Your task to perform on an android device: Add "bose soundlink mini" to the cart on bestbuy Image 0: 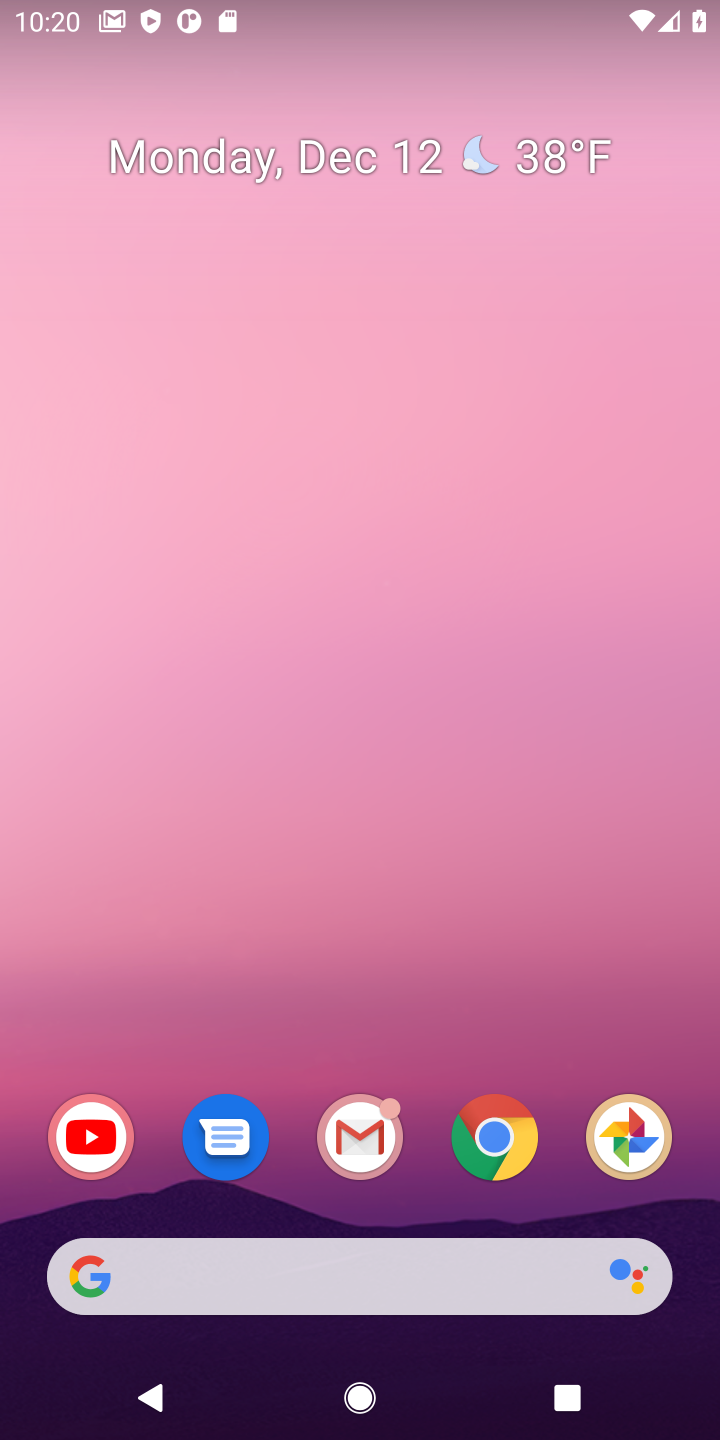
Step 0: click (492, 1278)
Your task to perform on an android device: Add "bose soundlink mini" to the cart on bestbuy Image 1: 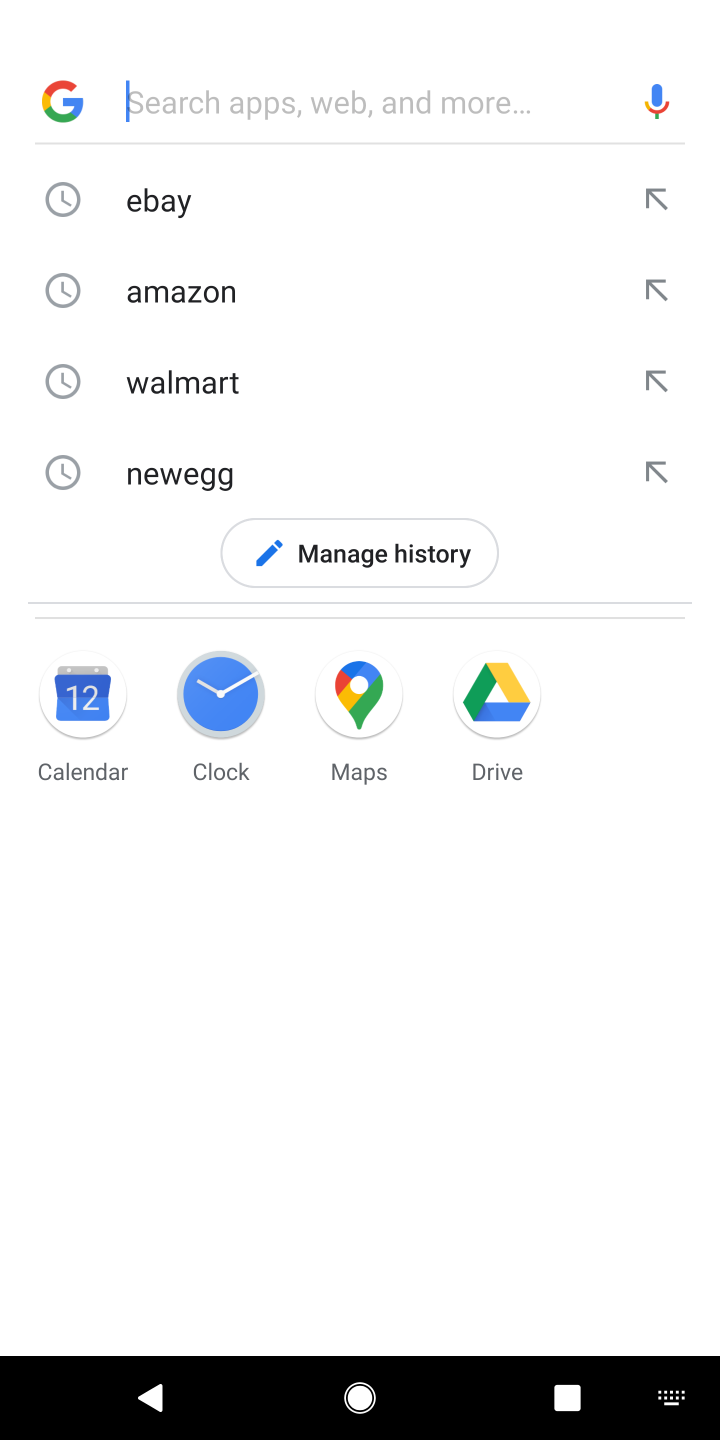
Step 1: type "bestbuy"
Your task to perform on an android device: Add "bose soundlink mini" to the cart on bestbuy Image 2: 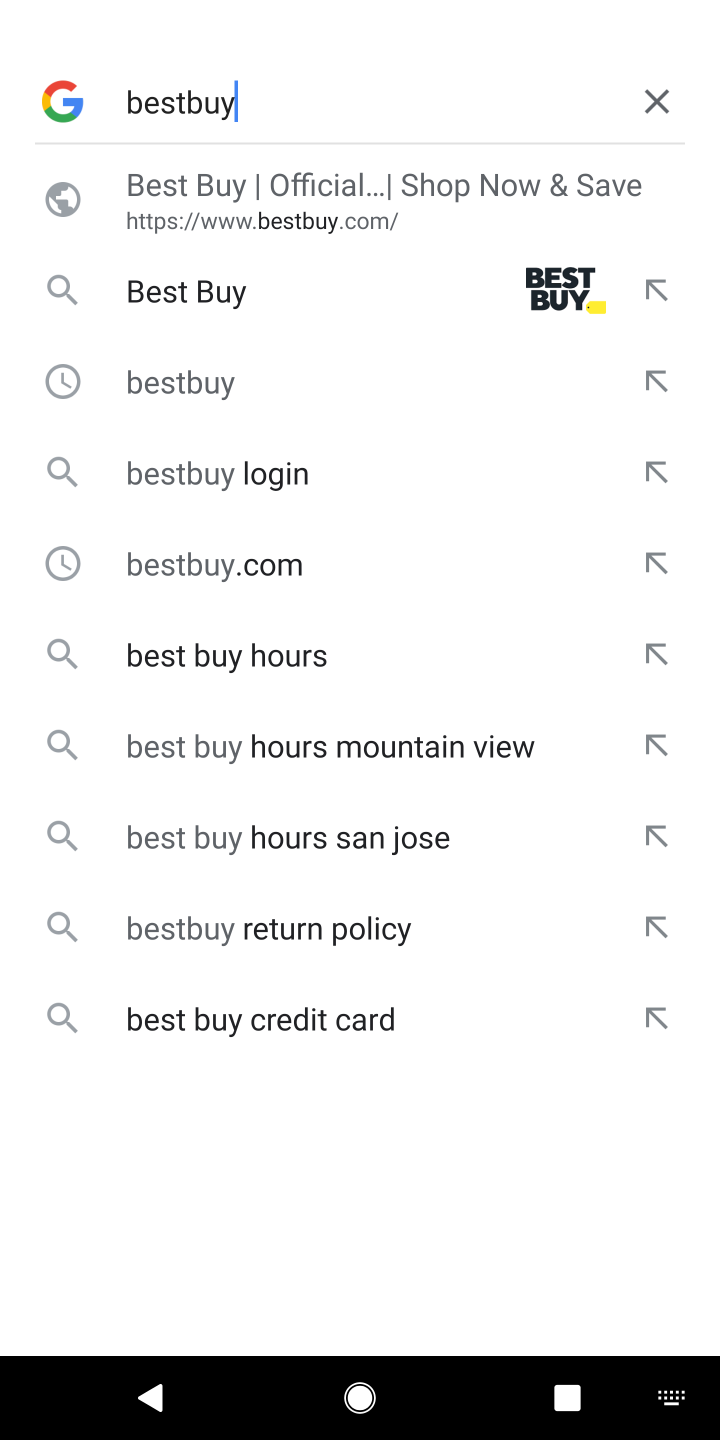
Step 2: click (244, 230)
Your task to perform on an android device: Add "bose soundlink mini" to the cart on bestbuy Image 3: 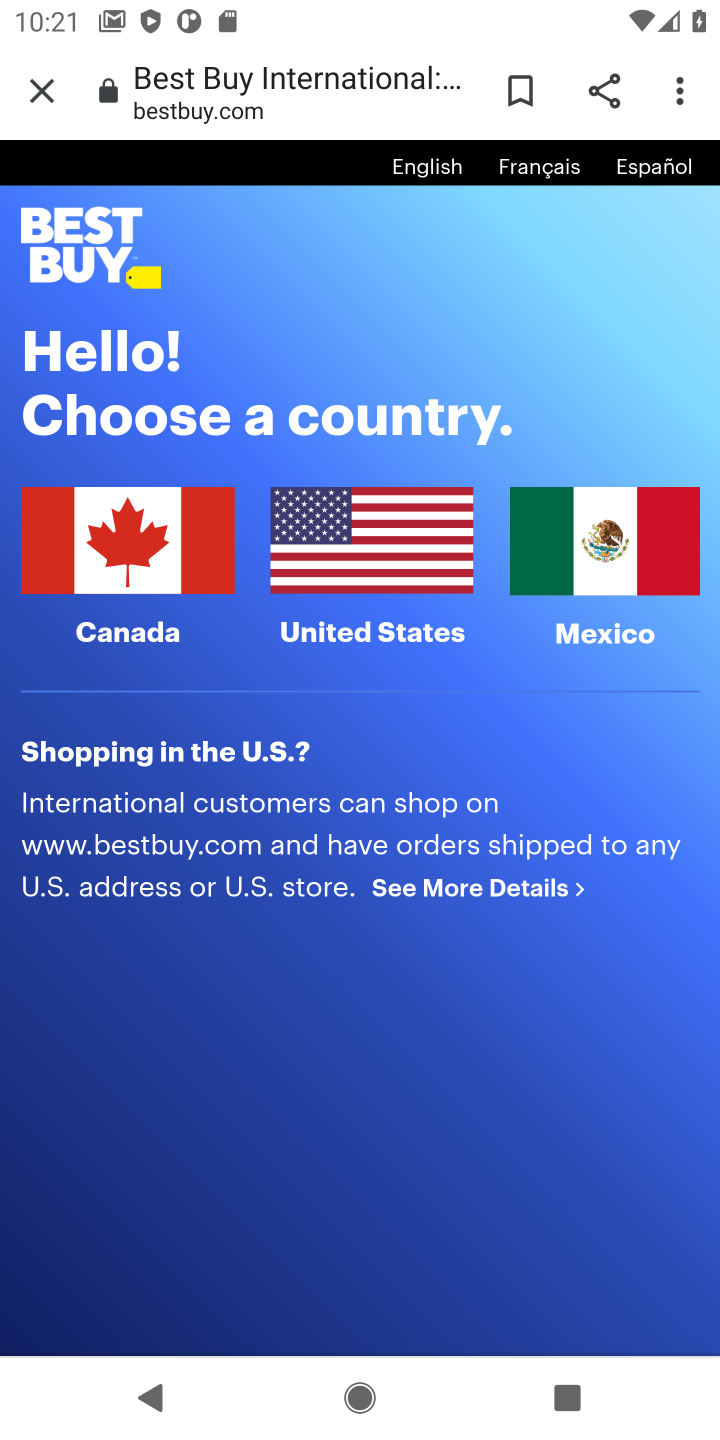
Step 3: click (66, 545)
Your task to perform on an android device: Add "bose soundlink mini" to the cart on bestbuy Image 4: 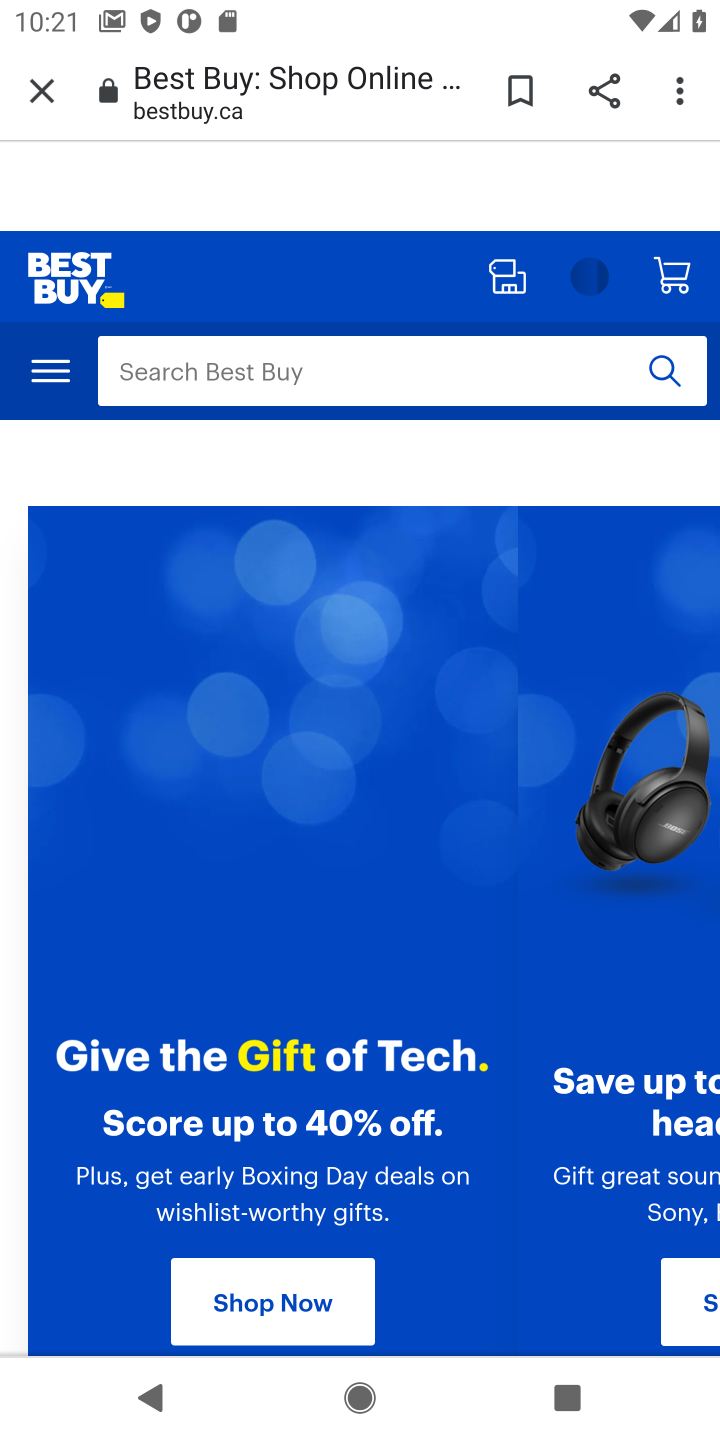
Step 4: click (279, 357)
Your task to perform on an android device: Add "bose soundlink mini" to the cart on bestbuy Image 5: 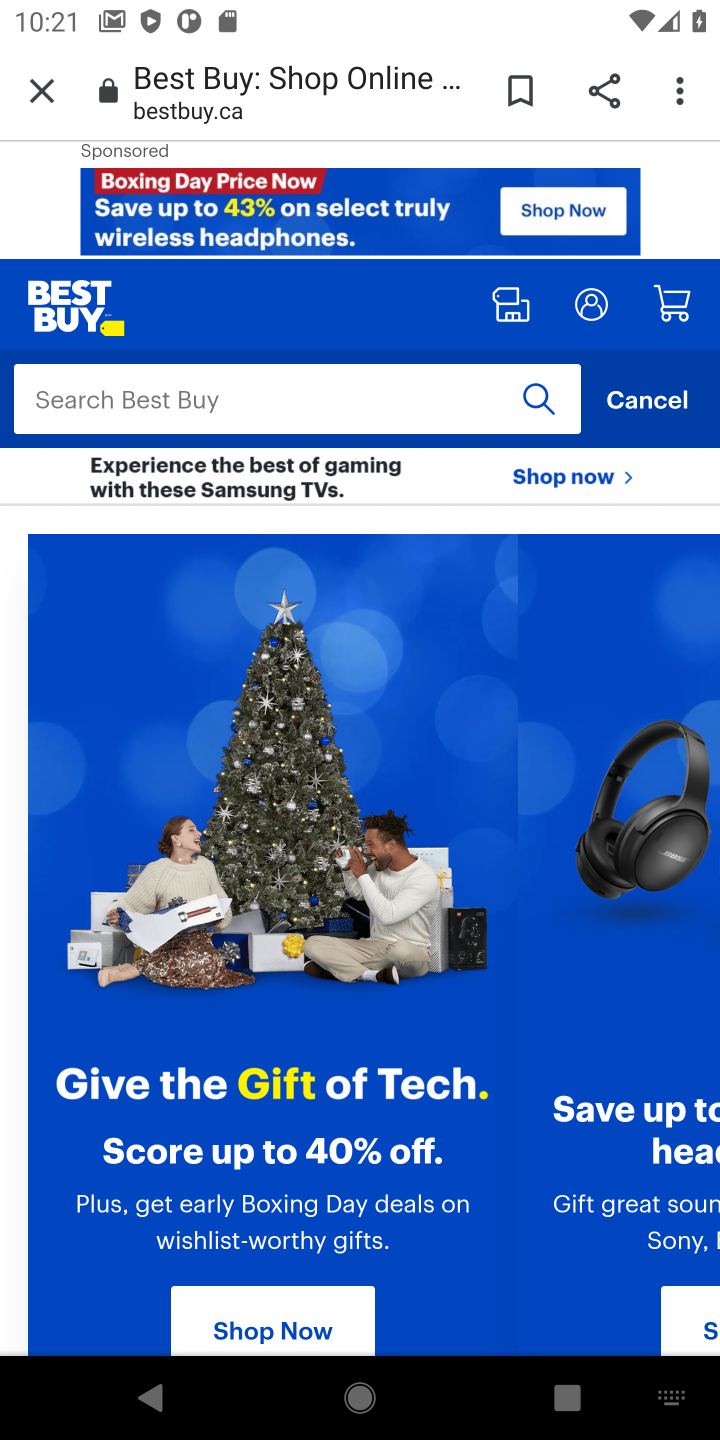
Step 5: type "bose soundlink"
Your task to perform on an android device: Add "bose soundlink mini" to the cart on bestbuy Image 6: 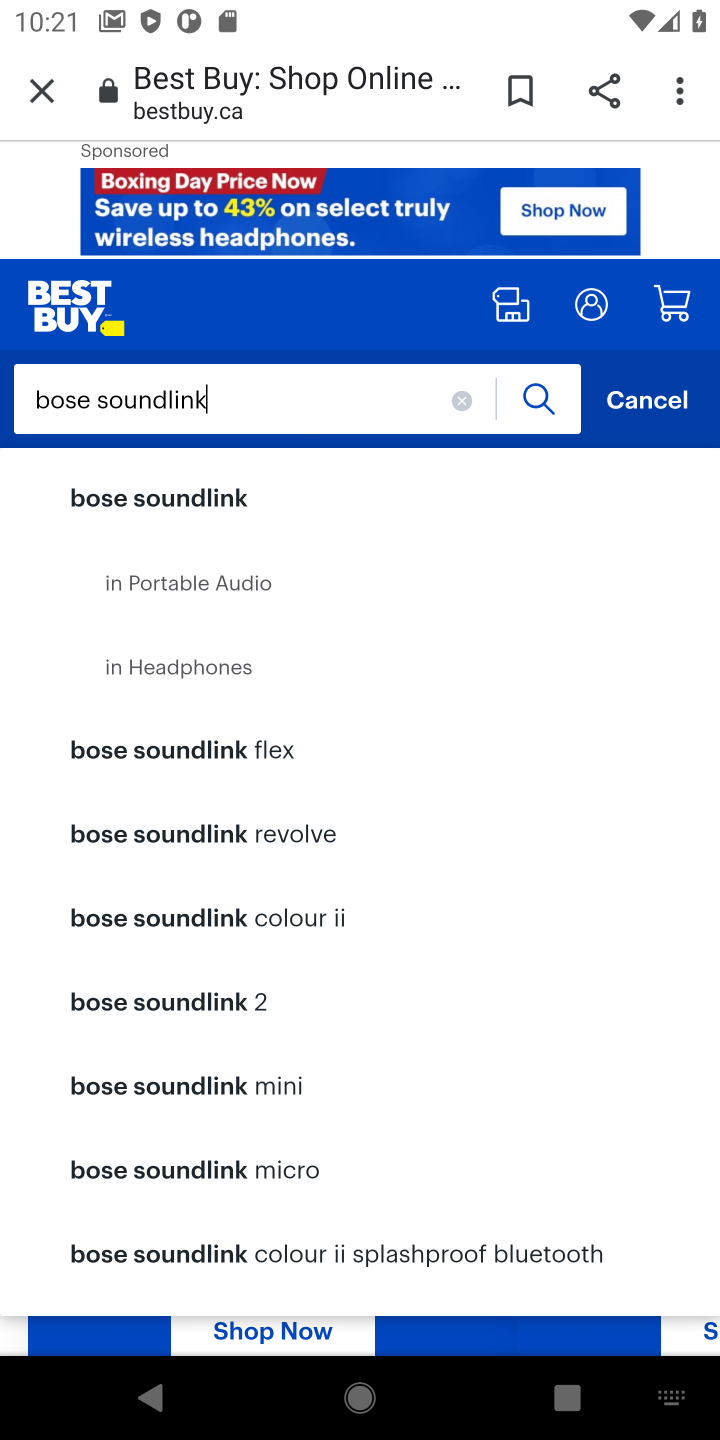
Step 6: click (306, 491)
Your task to perform on an android device: Add "bose soundlink mini" to the cart on bestbuy Image 7: 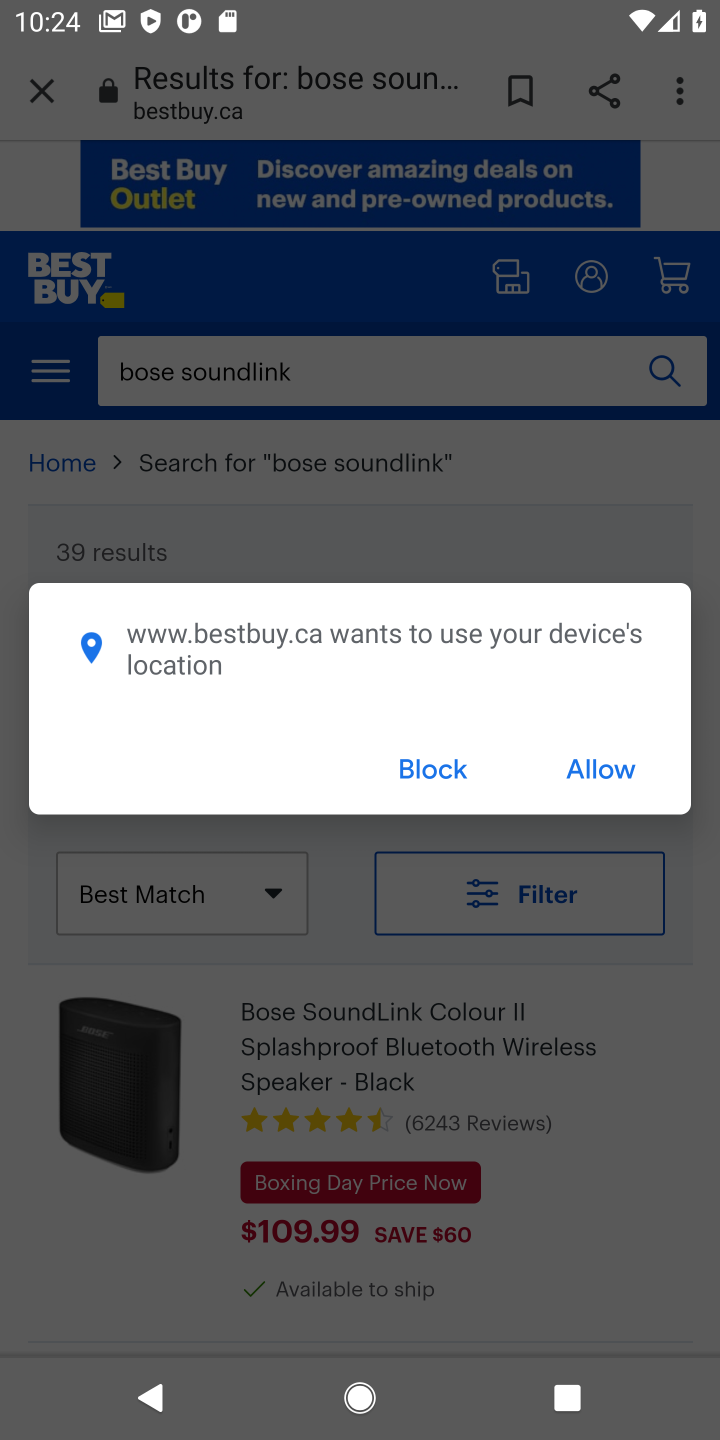
Step 7: click (633, 760)
Your task to perform on an android device: Add "bose soundlink mini" to the cart on bestbuy Image 8: 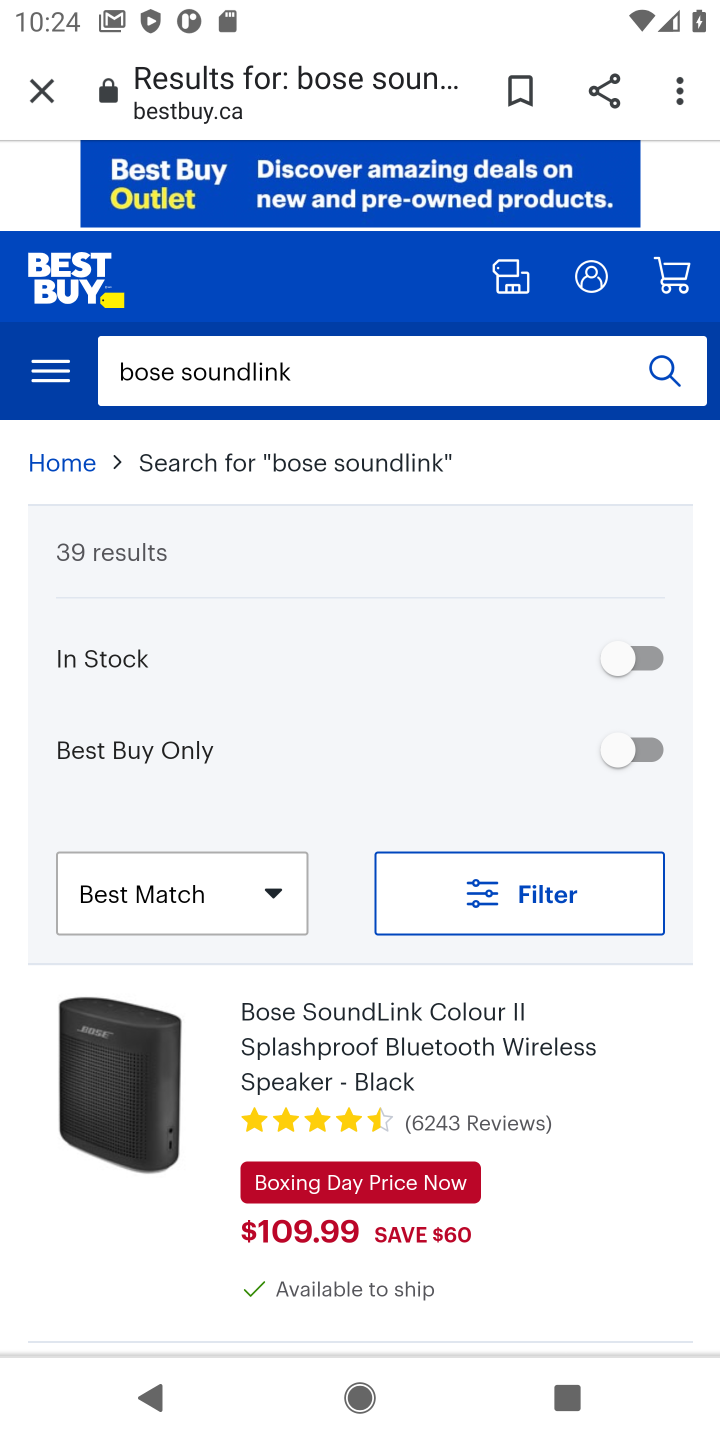
Step 8: click (511, 1151)
Your task to perform on an android device: Add "bose soundlink mini" to the cart on bestbuy Image 9: 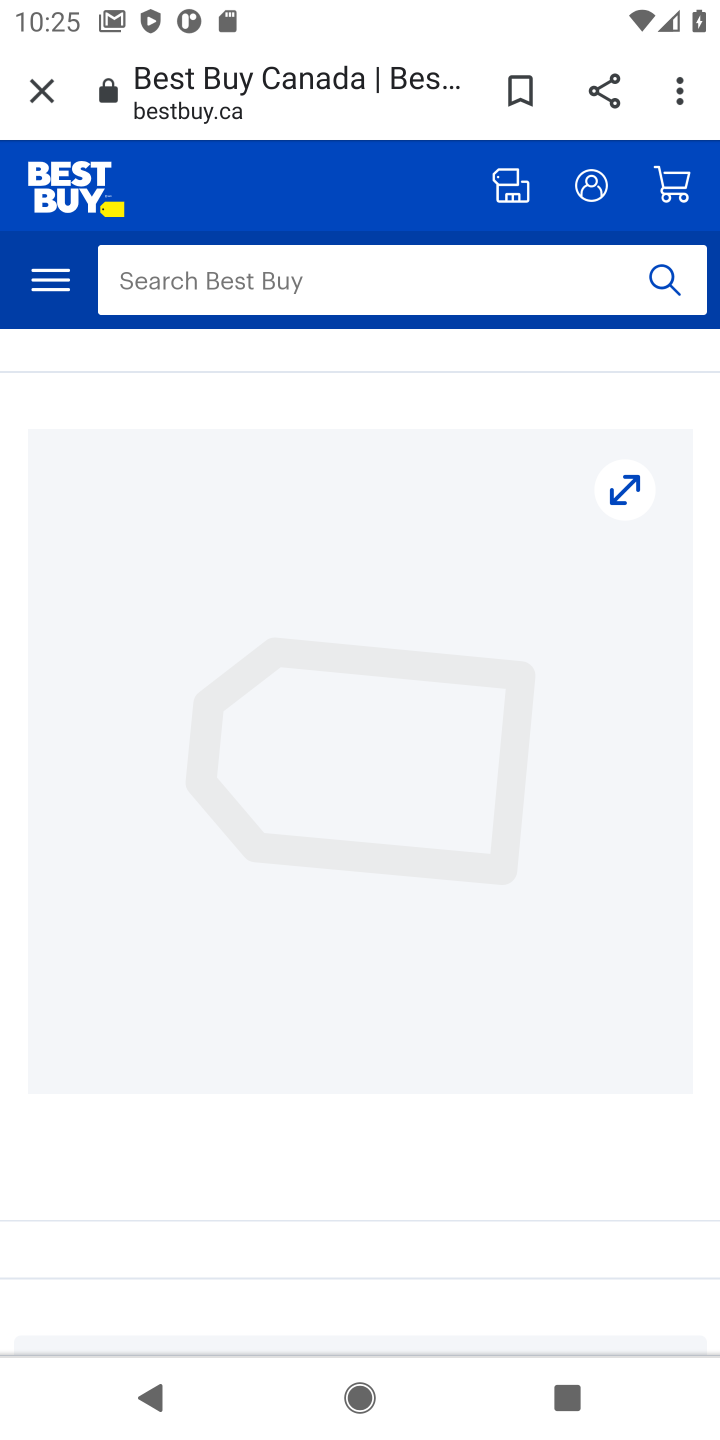
Step 9: task complete